Your task to perform on an android device: toggle notification dots Image 0: 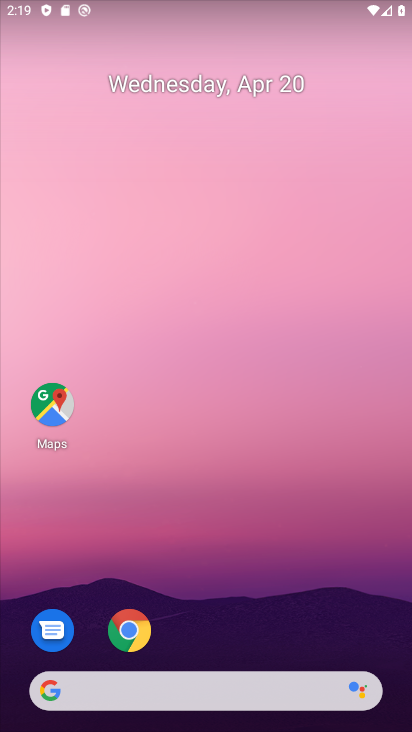
Step 0: drag from (227, 555) to (62, 149)
Your task to perform on an android device: toggle notification dots Image 1: 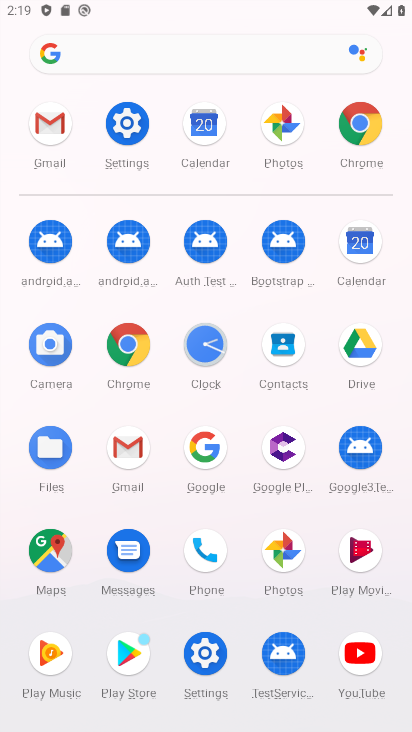
Step 1: click (120, 115)
Your task to perform on an android device: toggle notification dots Image 2: 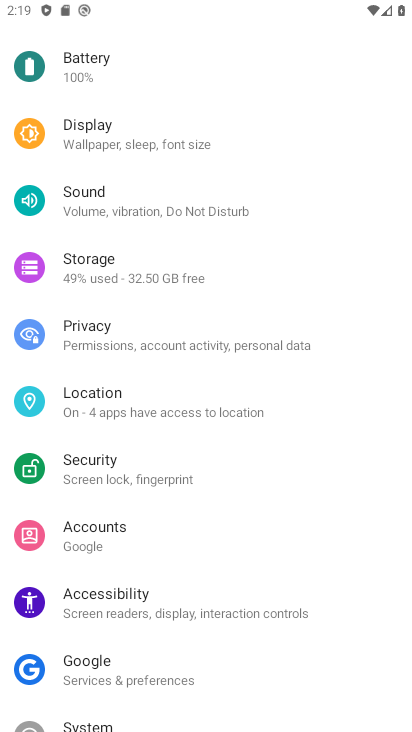
Step 2: drag from (128, 258) to (148, 456)
Your task to perform on an android device: toggle notification dots Image 3: 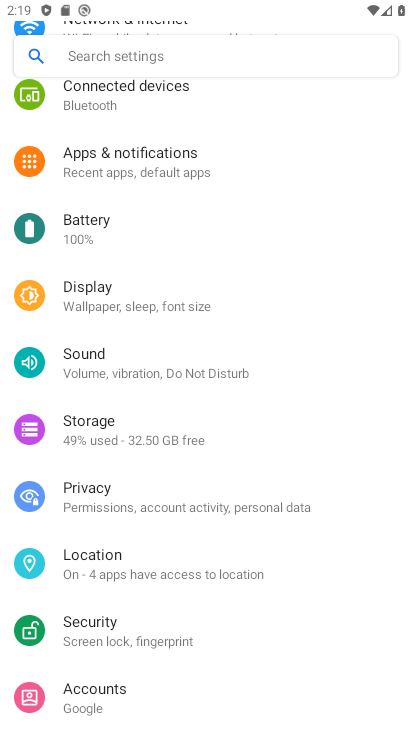
Step 3: click (123, 166)
Your task to perform on an android device: toggle notification dots Image 4: 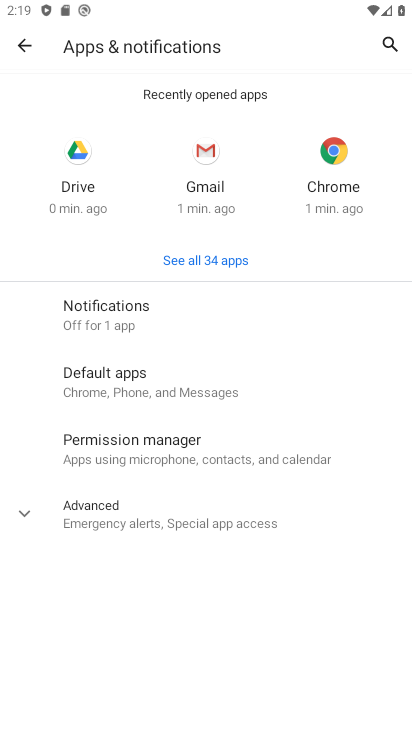
Step 4: click (117, 324)
Your task to perform on an android device: toggle notification dots Image 5: 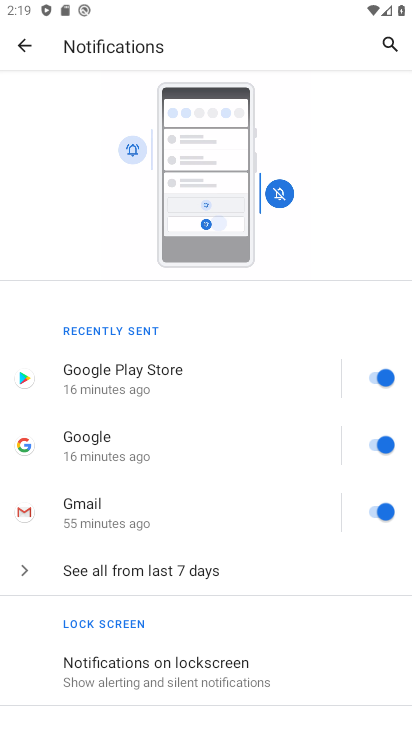
Step 5: drag from (131, 668) to (136, 271)
Your task to perform on an android device: toggle notification dots Image 6: 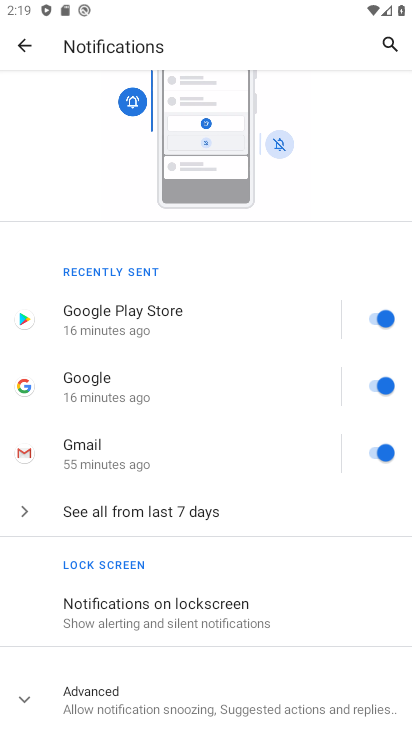
Step 6: click (123, 699)
Your task to perform on an android device: toggle notification dots Image 7: 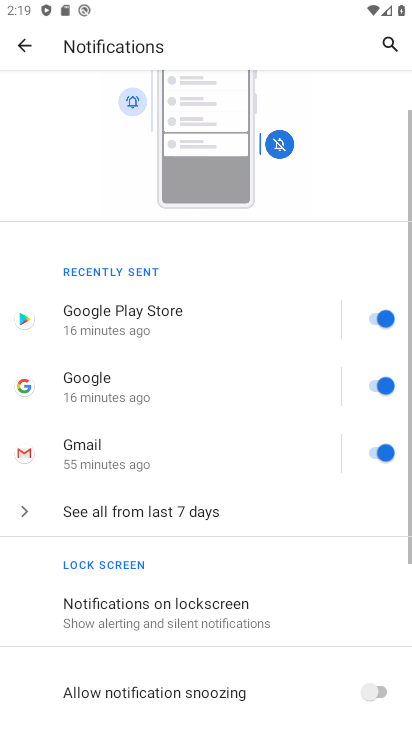
Step 7: drag from (123, 697) to (212, 234)
Your task to perform on an android device: toggle notification dots Image 8: 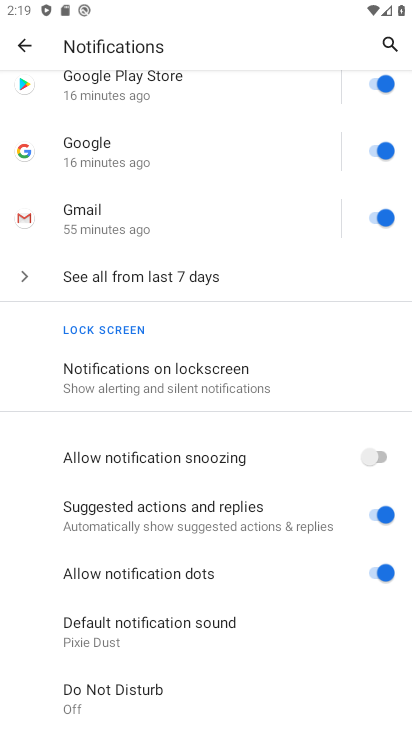
Step 8: click (380, 573)
Your task to perform on an android device: toggle notification dots Image 9: 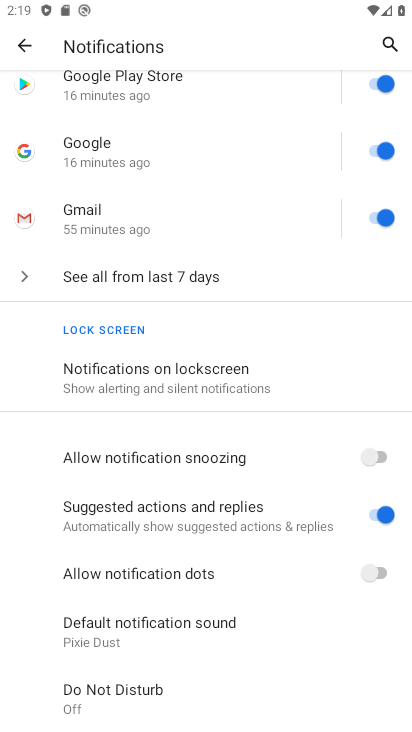
Step 9: task complete